Your task to perform on an android device: Open notification settings Image 0: 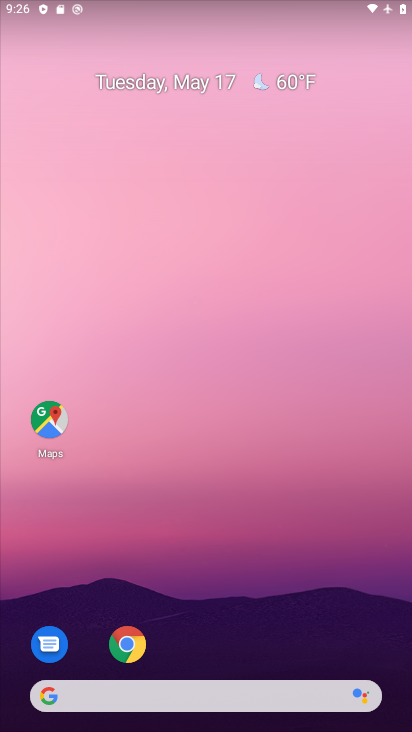
Step 0: drag from (293, 543) to (276, 237)
Your task to perform on an android device: Open notification settings Image 1: 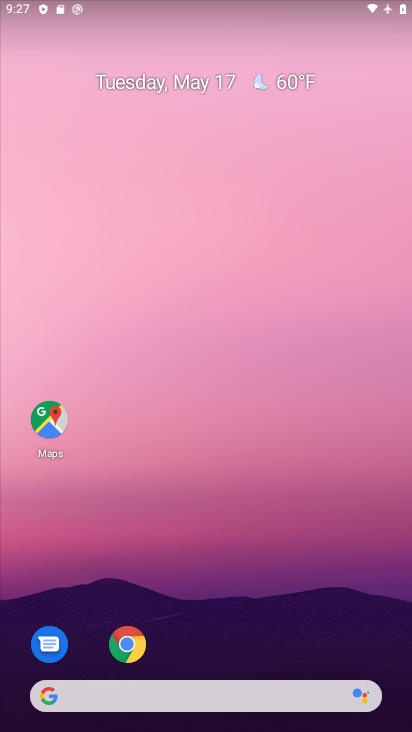
Step 1: drag from (315, 669) to (297, 243)
Your task to perform on an android device: Open notification settings Image 2: 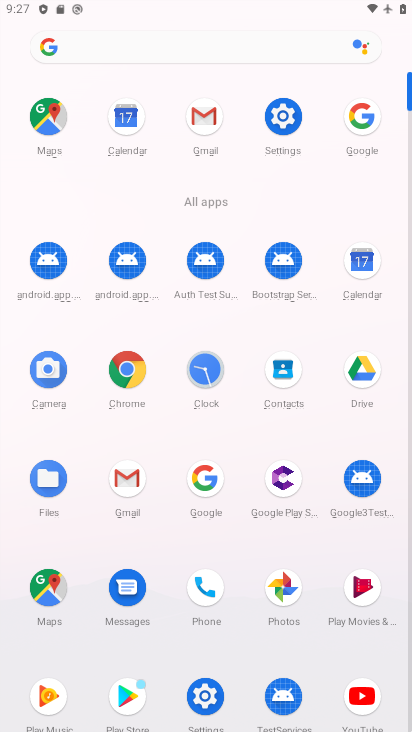
Step 2: click (294, 118)
Your task to perform on an android device: Open notification settings Image 3: 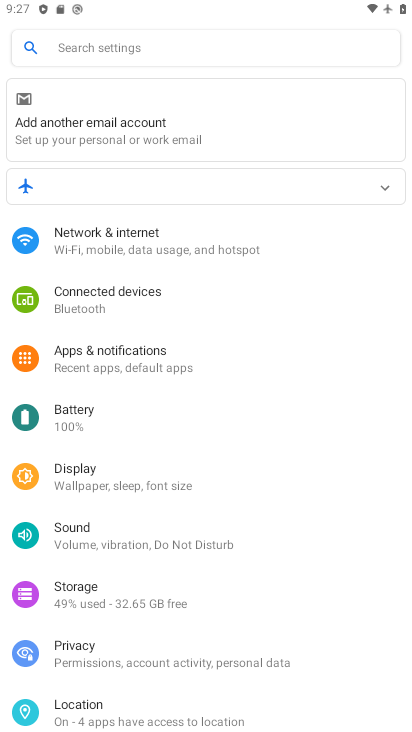
Step 3: click (211, 363)
Your task to perform on an android device: Open notification settings Image 4: 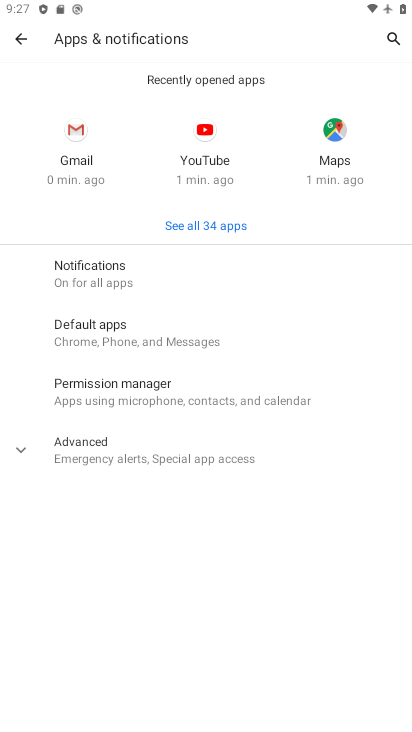
Step 4: click (192, 287)
Your task to perform on an android device: Open notification settings Image 5: 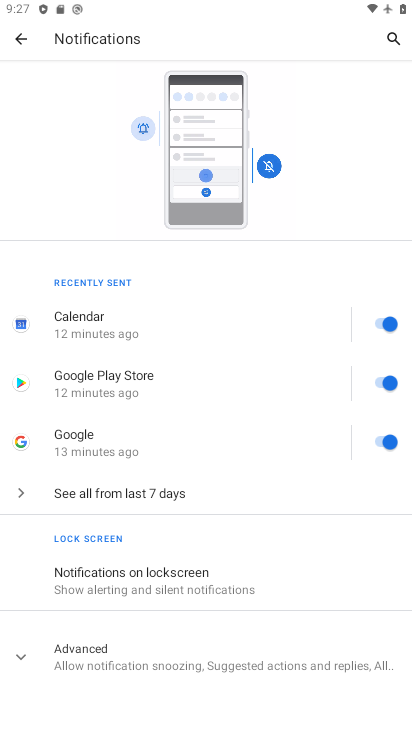
Step 5: task complete